Your task to perform on an android device: Open Reddit.com Image 0: 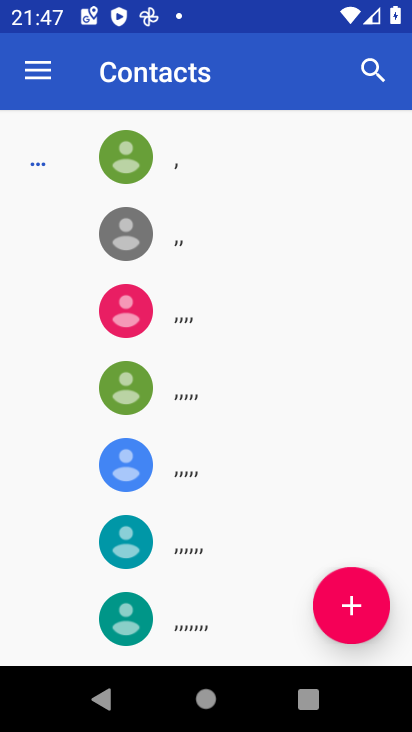
Step 0: press home button
Your task to perform on an android device: Open Reddit.com Image 1: 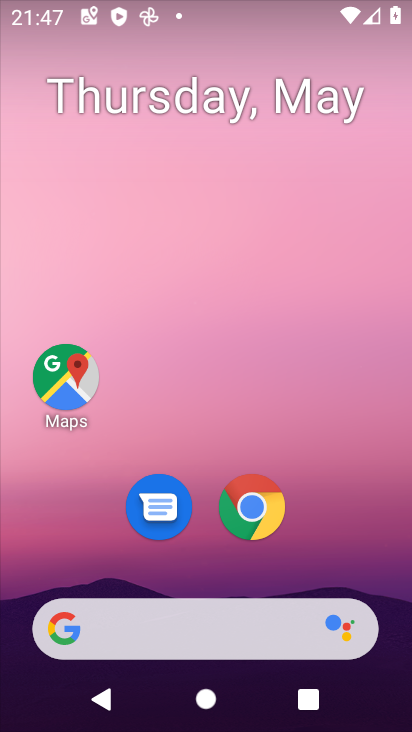
Step 1: drag from (264, 670) to (217, 219)
Your task to perform on an android device: Open Reddit.com Image 2: 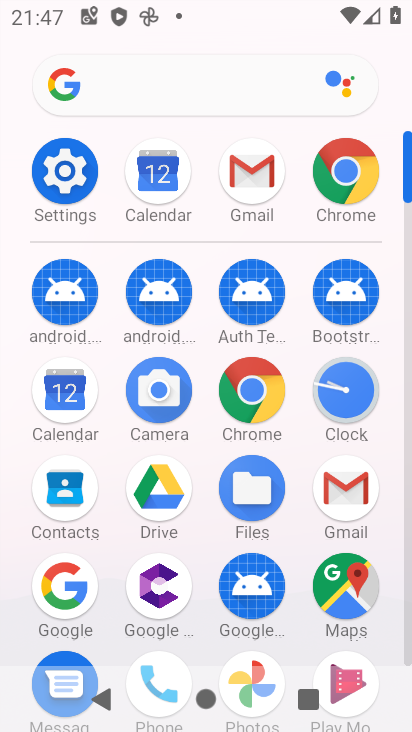
Step 2: click (357, 171)
Your task to perform on an android device: Open Reddit.com Image 3: 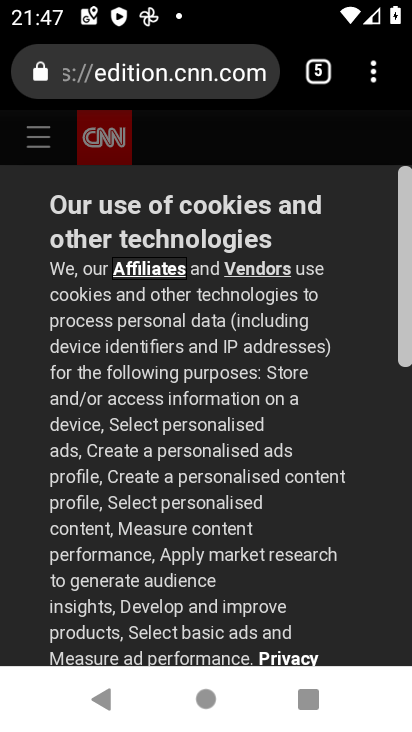
Step 3: click (174, 82)
Your task to perform on an android device: Open Reddit.com Image 4: 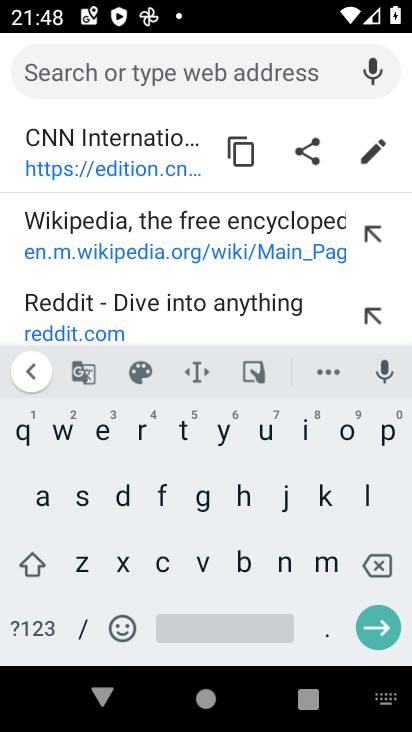
Step 4: click (143, 428)
Your task to perform on an android device: Open Reddit.com Image 5: 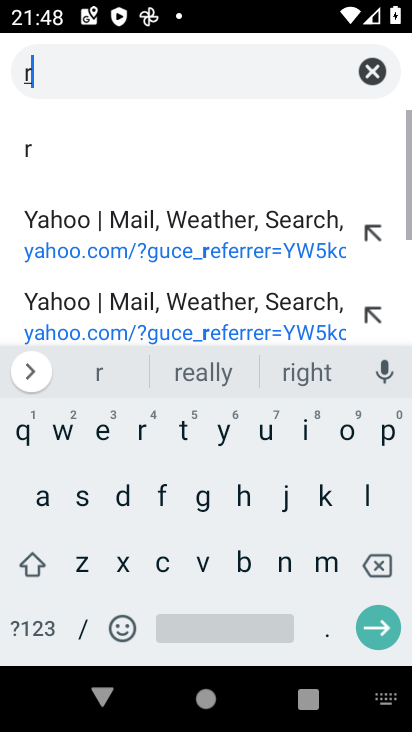
Step 5: click (100, 440)
Your task to perform on an android device: Open Reddit.com Image 6: 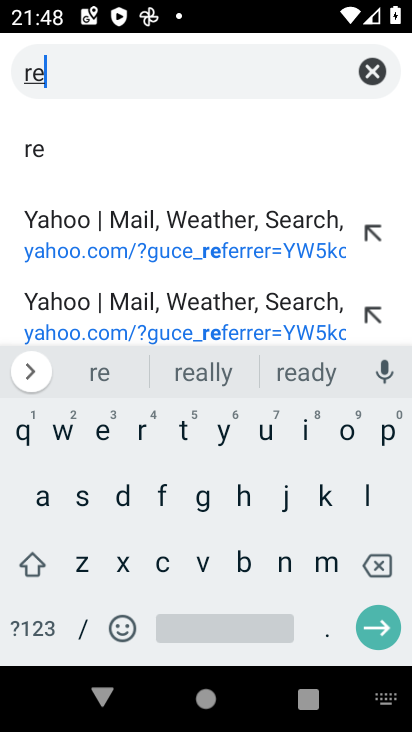
Step 6: click (122, 503)
Your task to perform on an android device: Open Reddit.com Image 7: 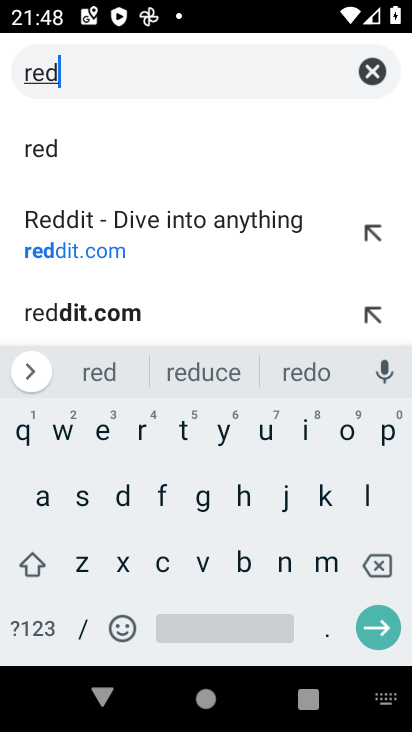
Step 7: click (113, 323)
Your task to perform on an android device: Open Reddit.com Image 8: 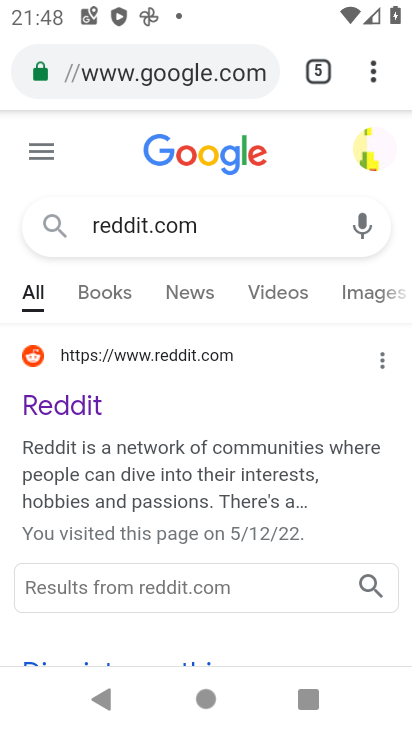
Step 8: click (94, 403)
Your task to perform on an android device: Open Reddit.com Image 9: 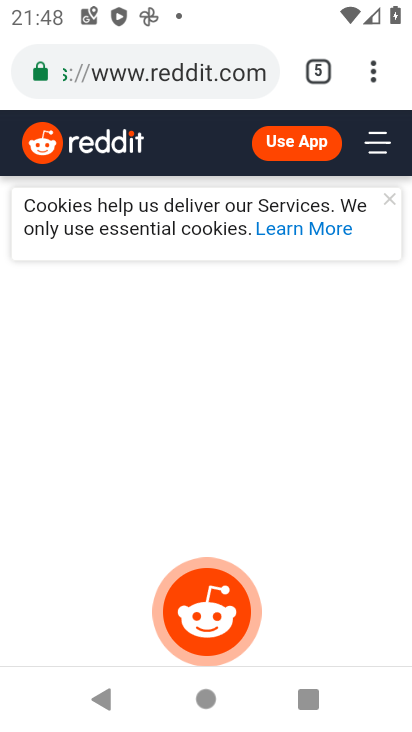
Step 9: task complete